Your task to perform on an android device: turn smart compose on in the gmail app Image 0: 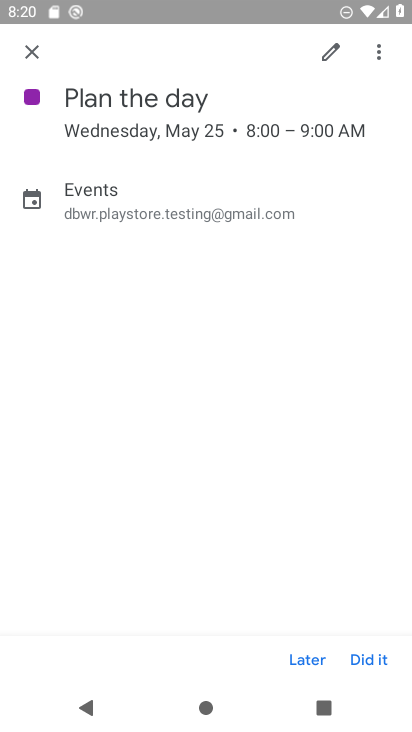
Step 0: press home button
Your task to perform on an android device: turn smart compose on in the gmail app Image 1: 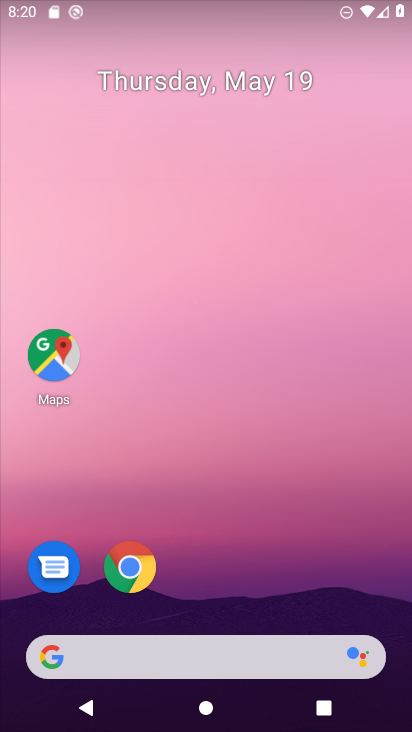
Step 1: drag from (226, 616) to (175, 245)
Your task to perform on an android device: turn smart compose on in the gmail app Image 2: 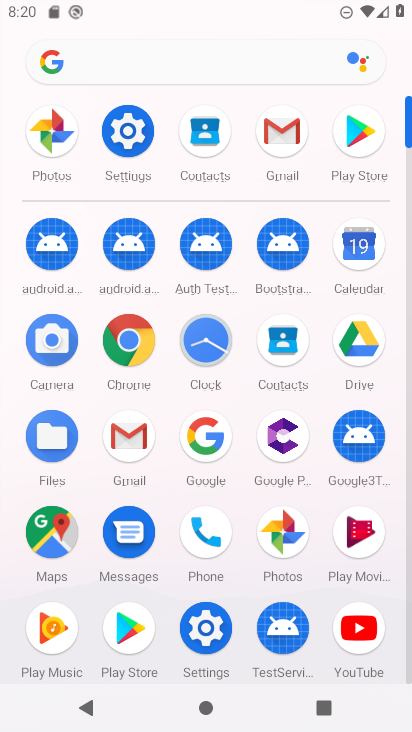
Step 2: click (285, 122)
Your task to perform on an android device: turn smart compose on in the gmail app Image 3: 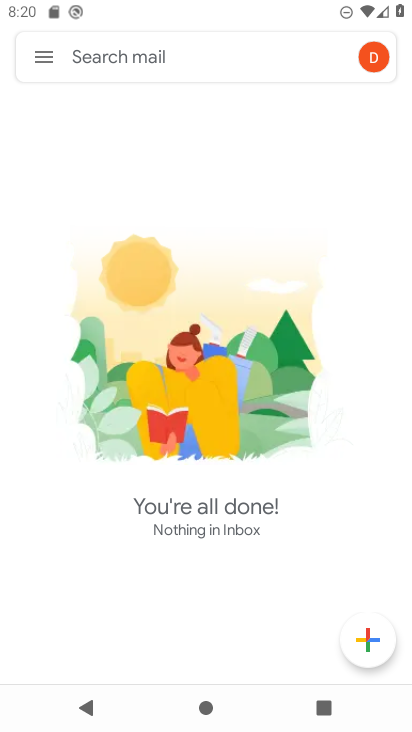
Step 3: click (48, 59)
Your task to perform on an android device: turn smart compose on in the gmail app Image 4: 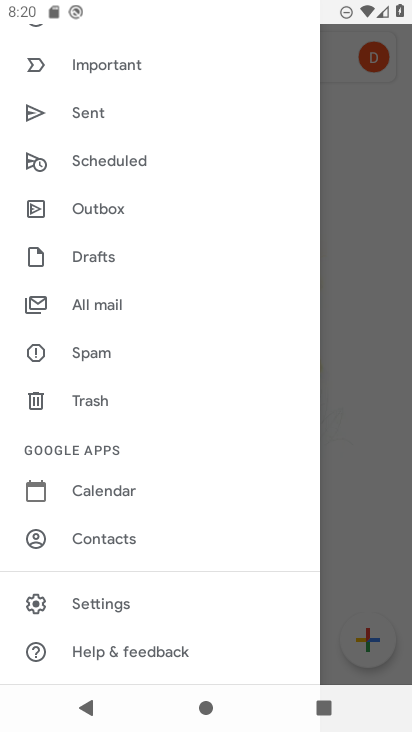
Step 4: click (81, 599)
Your task to perform on an android device: turn smart compose on in the gmail app Image 5: 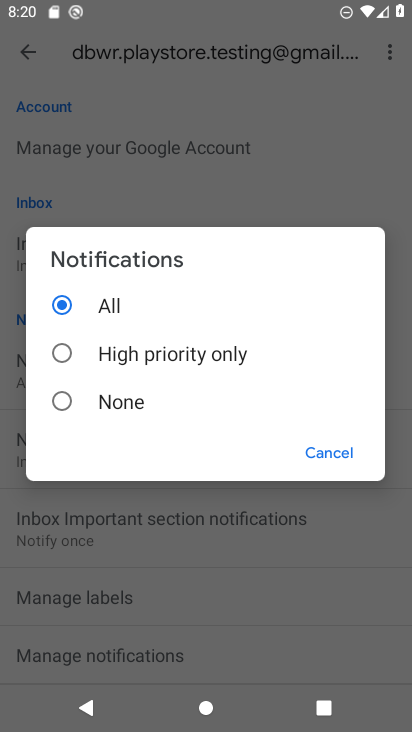
Step 5: click (350, 459)
Your task to perform on an android device: turn smart compose on in the gmail app Image 6: 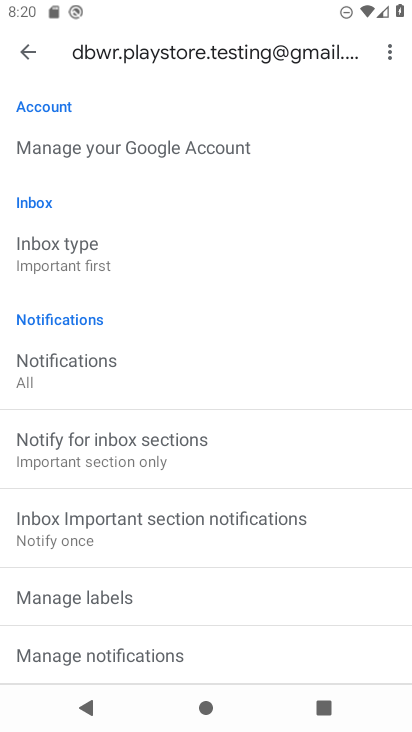
Step 6: task complete